Your task to perform on an android device: turn off sleep mode Image 0: 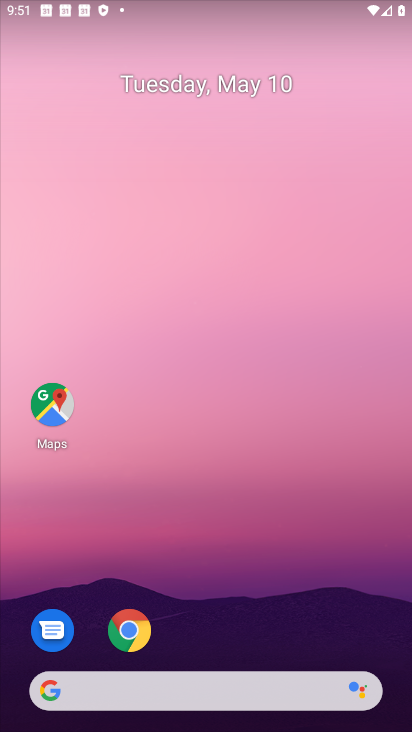
Step 0: drag from (185, 717) to (401, 91)
Your task to perform on an android device: turn off sleep mode Image 1: 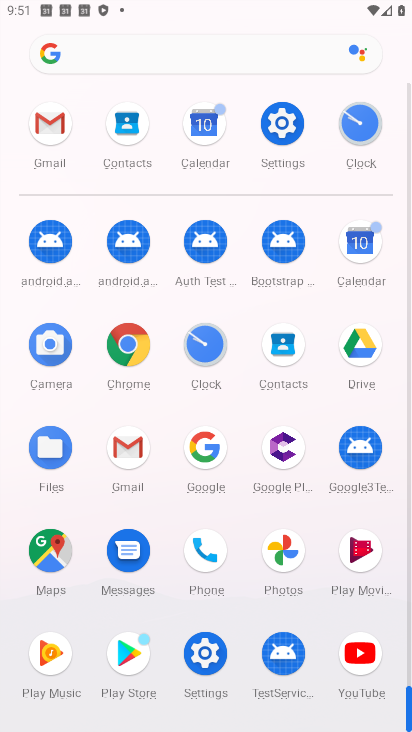
Step 1: click (289, 117)
Your task to perform on an android device: turn off sleep mode Image 2: 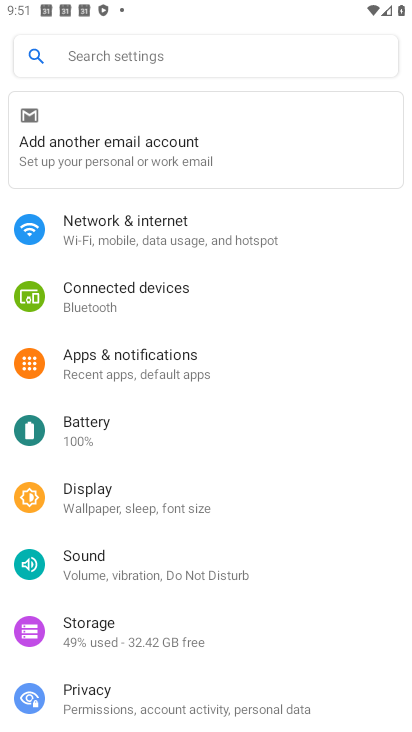
Step 2: click (180, 506)
Your task to perform on an android device: turn off sleep mode Image 3: 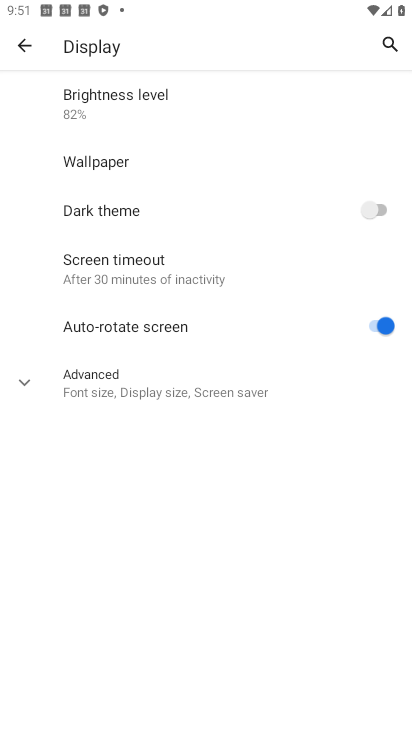
Step 3: task complete